Your task to perform on an android device: move an email to a new category in the gmail app Image 0: 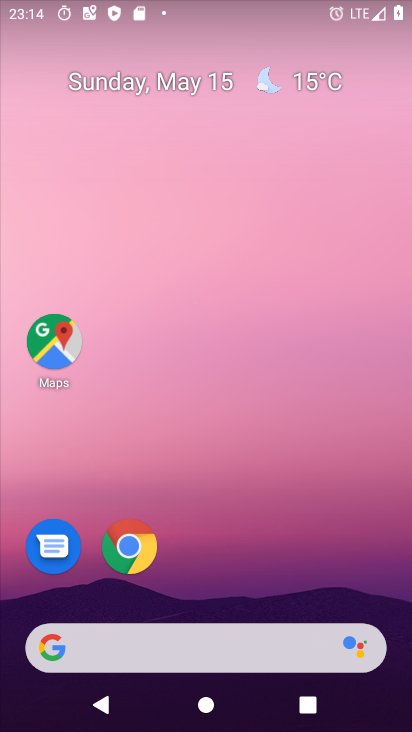
Step 0: drag from (295, 652) to (170, 124)
Your task to perform on an android device: move an email to a new category in the gmail app Image 1: 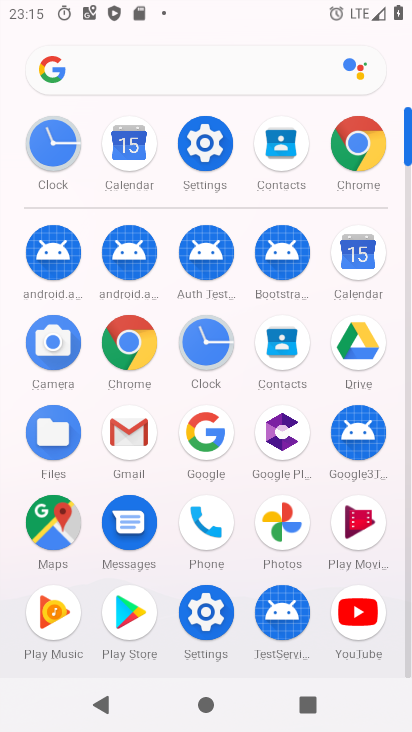
Step 1: click (131, 433)
Your task to perform on an android device: move an email to a new category in the gmail app Image 2: 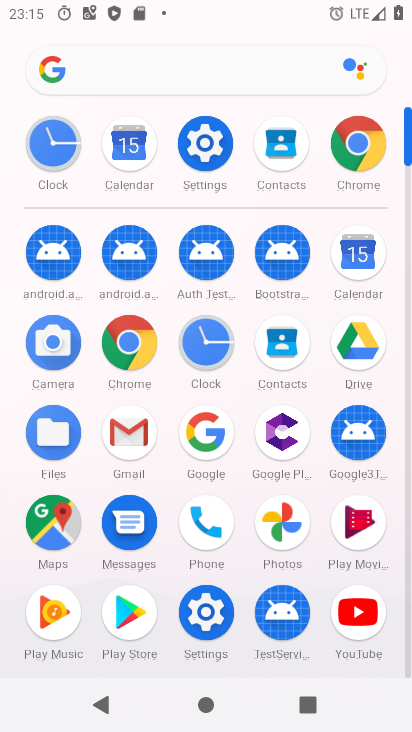
Step 2: click (131, 432)
Your task to perform on an android device: move an email to a new category in the gmail app Image 3: 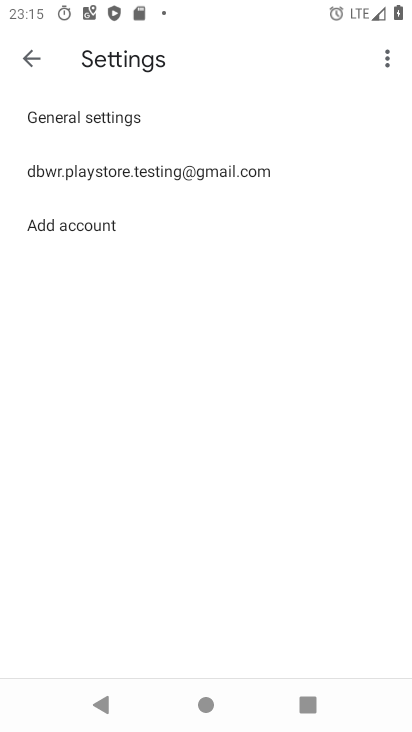
Step 3: click (91, 165)
Your task to perform on an android device: move an email to a new category in the gmail app Image 4: 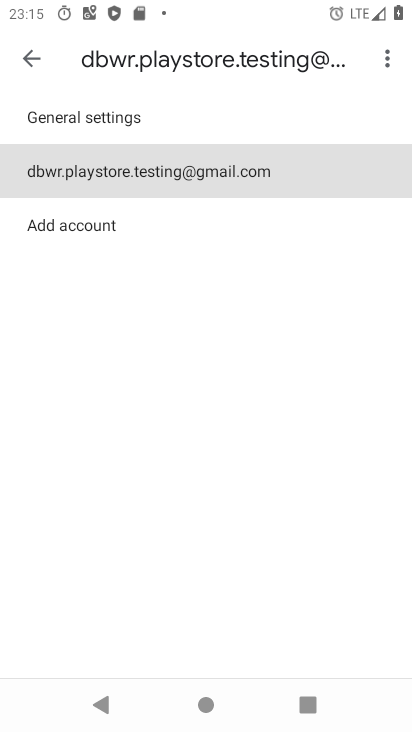
Step 4: click (94, 172)
Your task to perform on an android device: move an email to a new category in the gmail app Image 5: 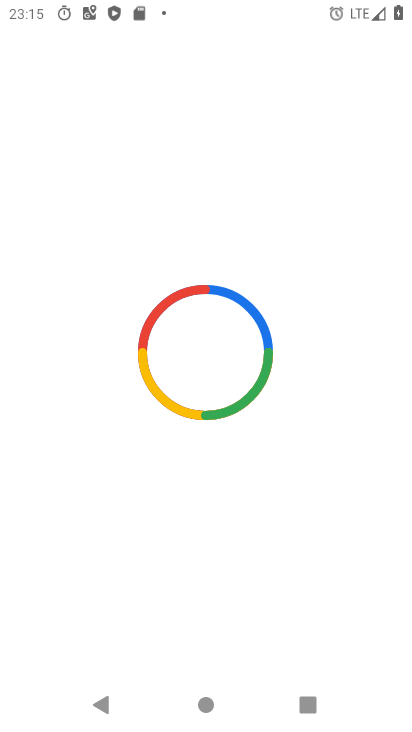
Step 5: press back button
Your task to perform on an android device: move an email to a new category in the gmail app Image 6: 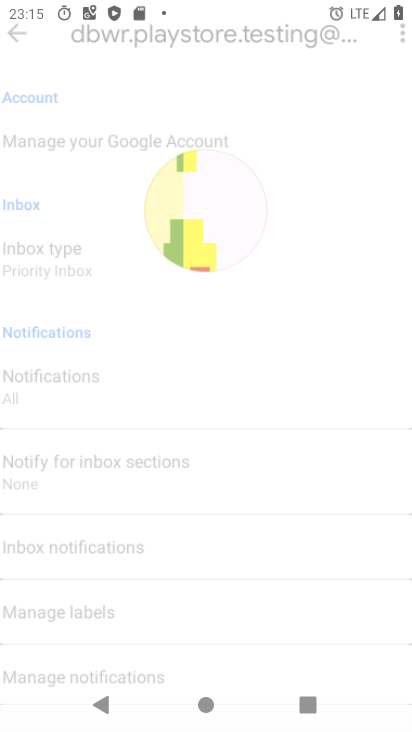
Step 6: press back button
Your task to perform on an android device: move an email to a new category in the gmail app Image 7: 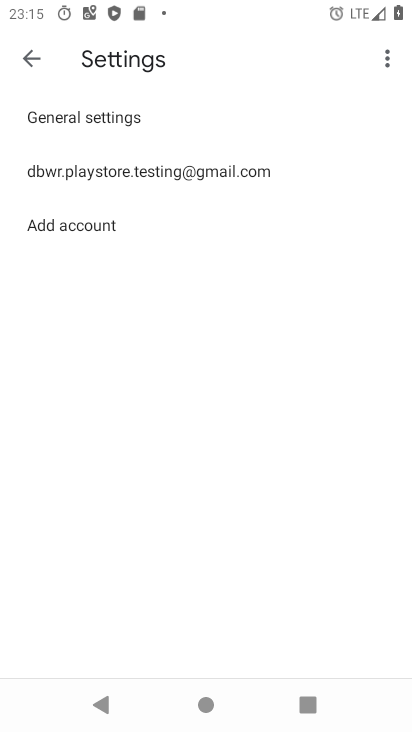
Step 7: click (31, 58)
Your task to perform on an android device: move an email to a new category in the gmail app Image 8: 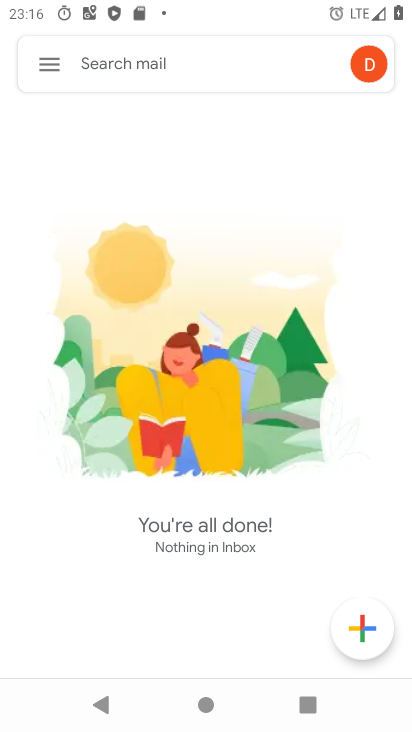
Step 8: click (53, 65)
Your task to perform on an android device: move an email to a new category in the gmail app Image 9: 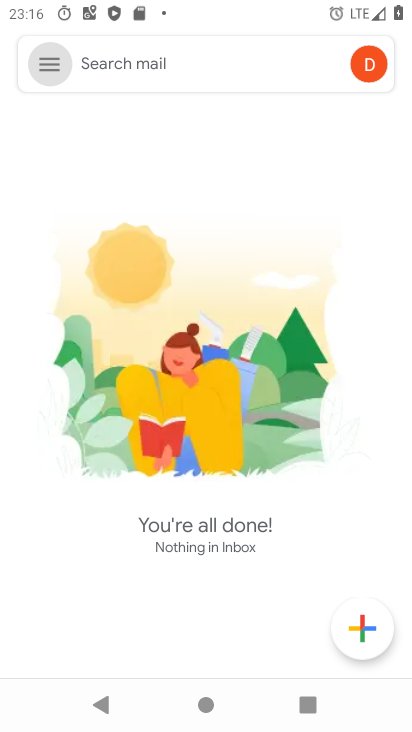
Step 9: click (55, 72)
Your task to perform on an android device: move an email to a new category in the gmail app Image 10: 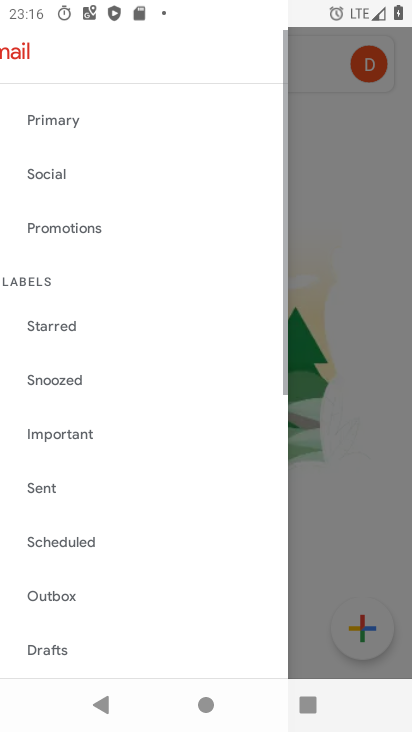
Step 10: click (59, 76)
Your task to perform on an android device: move an email to a new category in the gmail app Image 11: 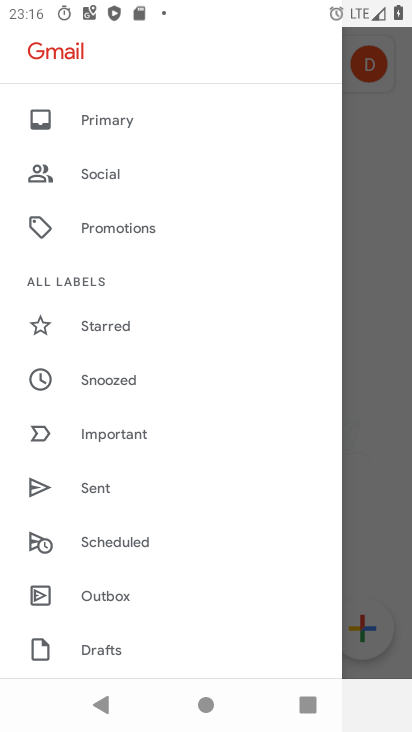
Step 11: drag from (160, 444) to (142, 36)
Your task to perform on an android device: move an email to a new category in the gmail app Image 12: 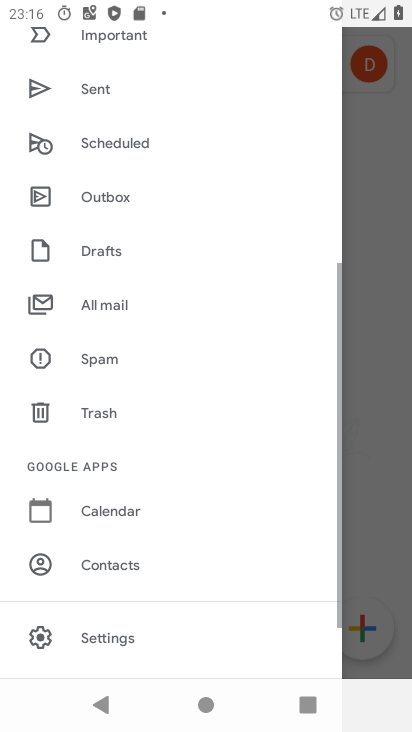
Step 12: drag from (187, 413) to (182, 94)
Your task to perform on an android device: move an email to a new category in the gmail app Image 13: 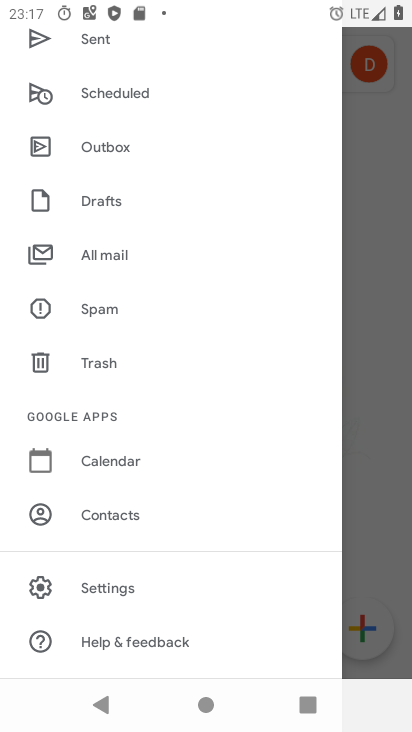
Step 13: click (107, 254)
Your task to perform on an android device: move an email to a new category in the gmail app Image 14: 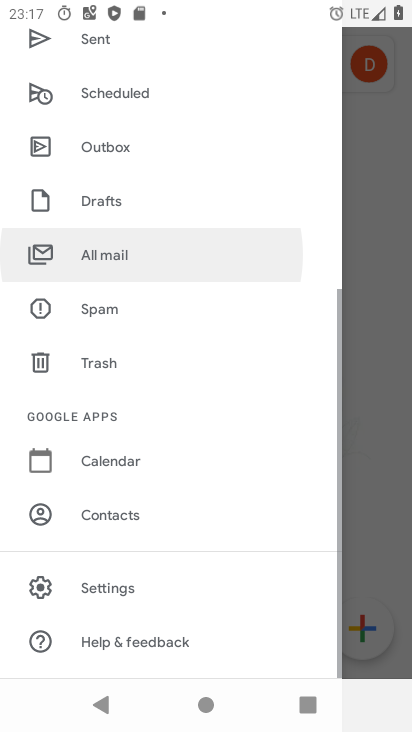
Step 14: click (107, 254)
Your task to perform on an android device: move an email to a new category in the gmail app Image 15: 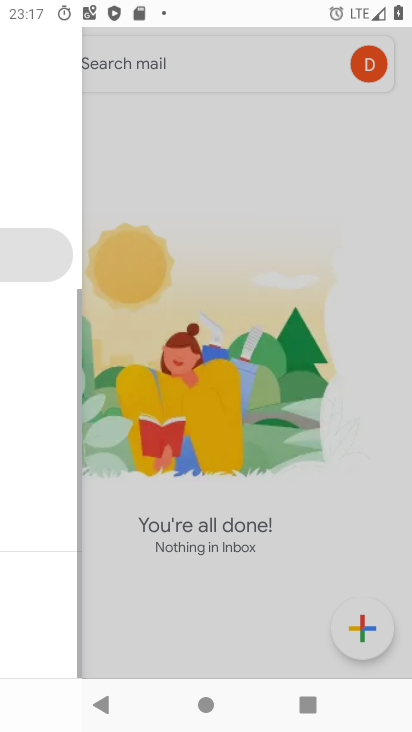
Step 15: click (107, 254)
Your task to perform on an android device: move an email to a new category in the gmail app Image 16: 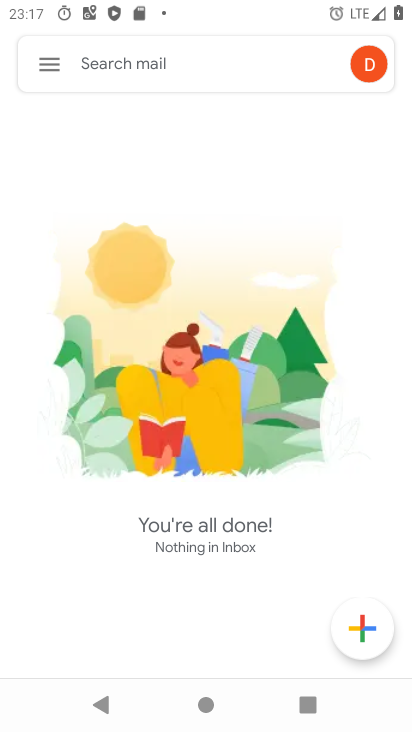
Step 16: click (107, 254)
Your task to perform on an android device: move an email to a new category in the gmail app Image 17: 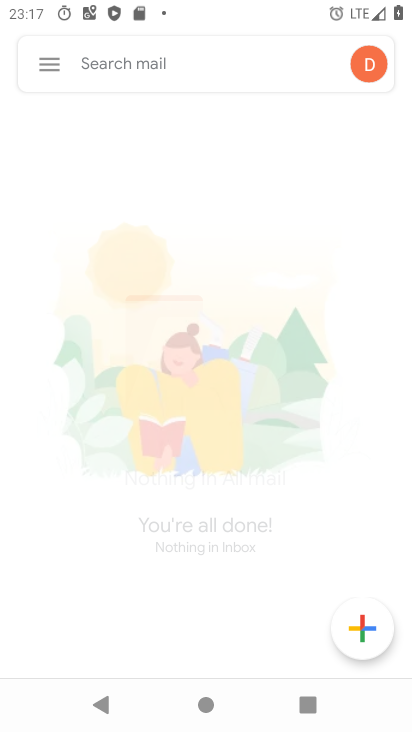
Step 17: click (115, 254)
Your task to perform on an android device: move an email to a new category in the gmail app Image 18: 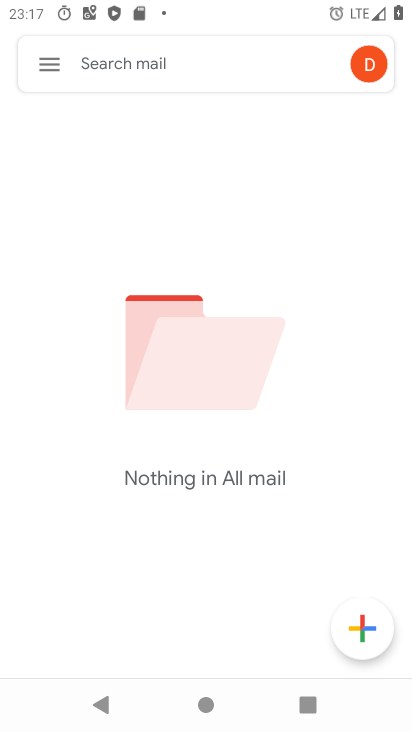
Step 18: click (55, 62)
Your task to perform on an android device: move an email to a new category in the gmail app Image 19: 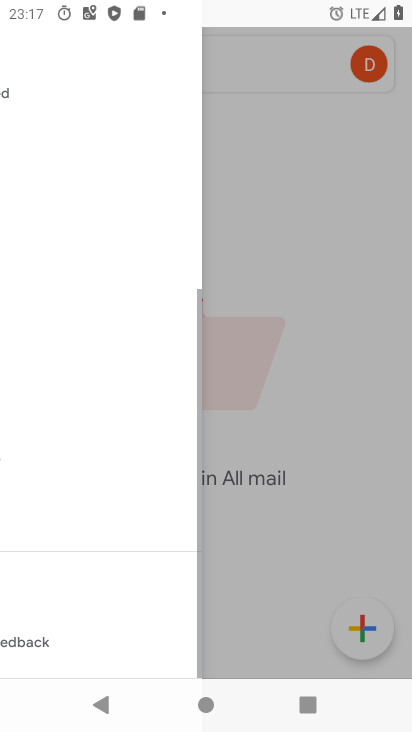
Step 19: click (48, 62)
Your task to perform on an android device: move an email to a new category in the gmail app Image 20: 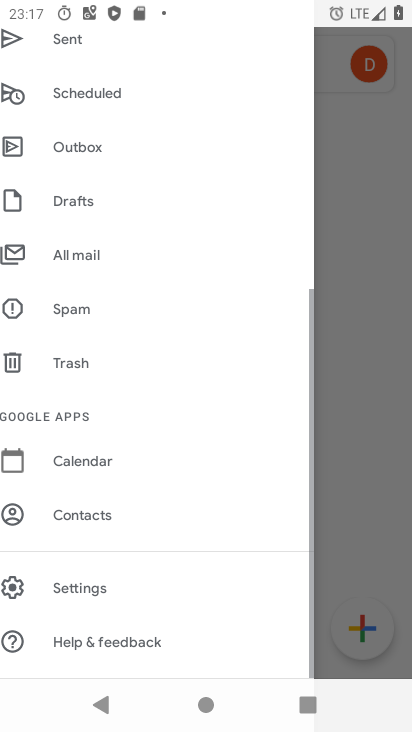
Step 20: click (41, 62)
Your task to perform on an android device: move an email to a new category in the gmail app Image 21: 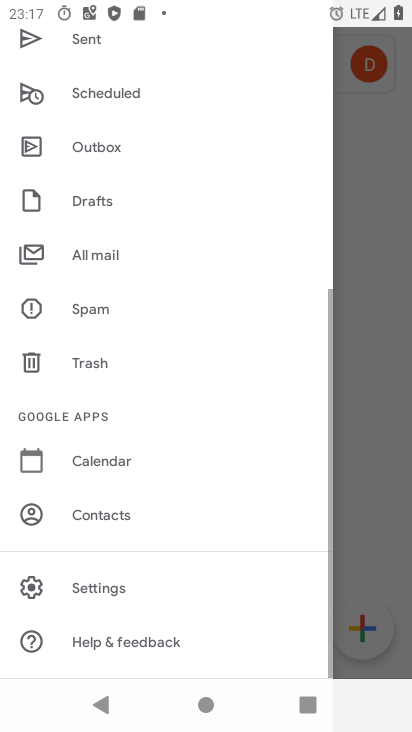
Step 21: click (42, 61)
Your task to perform on an android device: move an email to a new category in the gmail app Image 22: 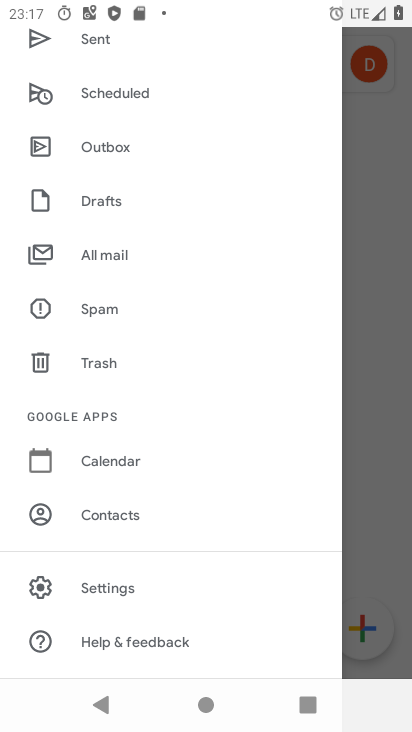
Step 22: click (112, 250)
Your task to perform on an android device: move an email to a new category in the gmail app Image 23: 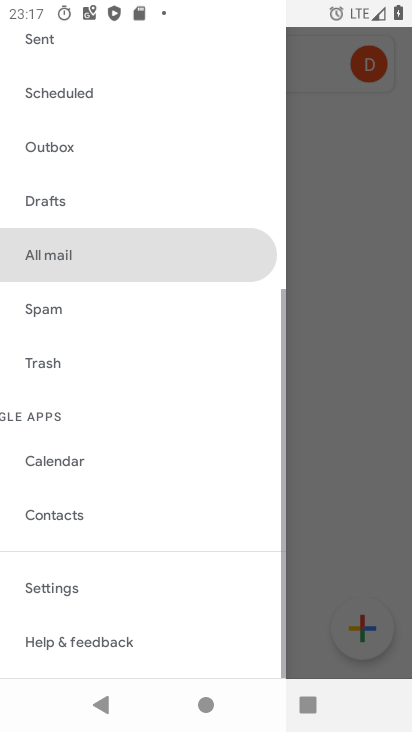
Step 23: click (113, 251)
Your task to perform on an android device: move an email to a new category in the gmail app Image 24: 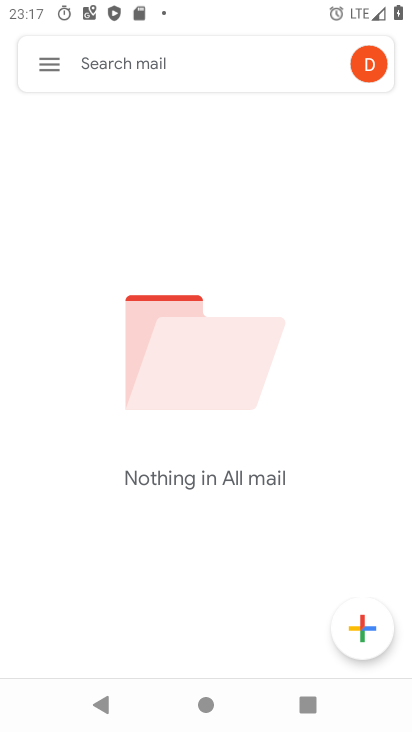
Step 24: task complete